Your task to perform on an android device: Go to Wikipedia Image 0: 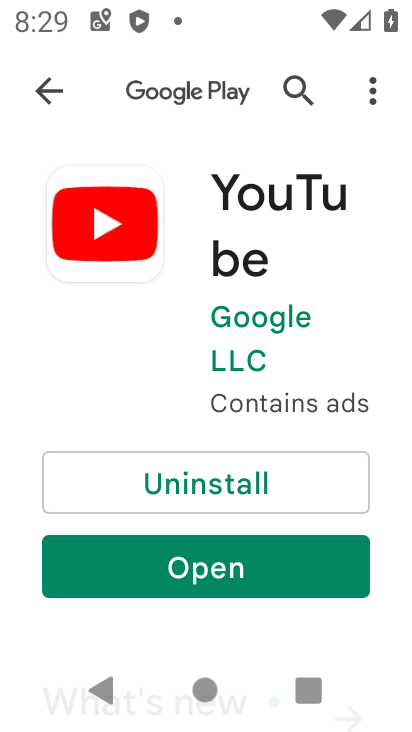
Step 0: press home button
Your task to perform on an android device: Go to Wikipedia Image 1: 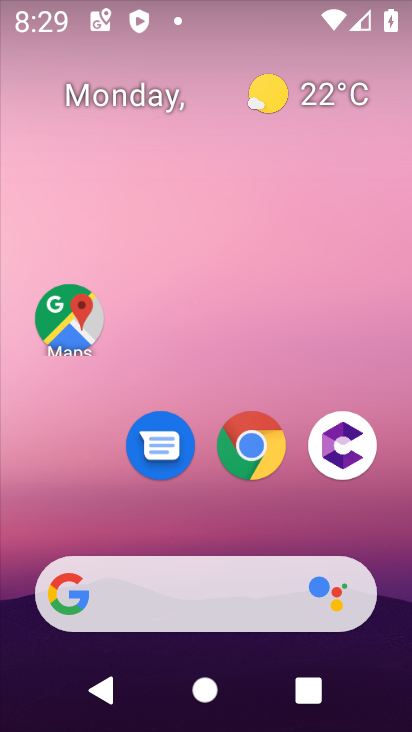
Step 1: click (158, 598)
Your task to perform on an android device: Go to Wikipedia Image 2: 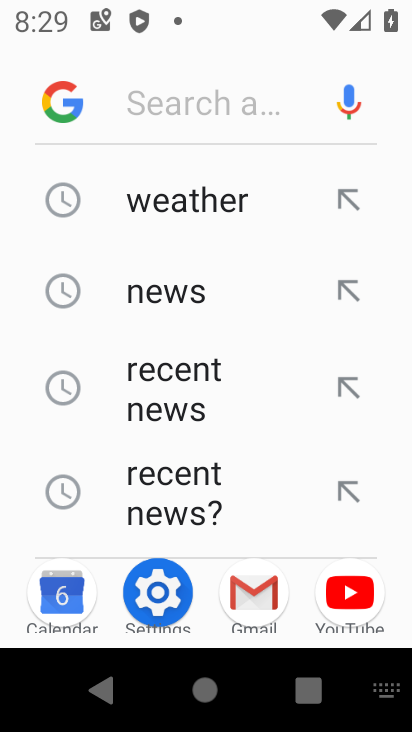
Step 2: click (190, 98)
Your task to perform on an android device: Go to Wikipedia Image 3: 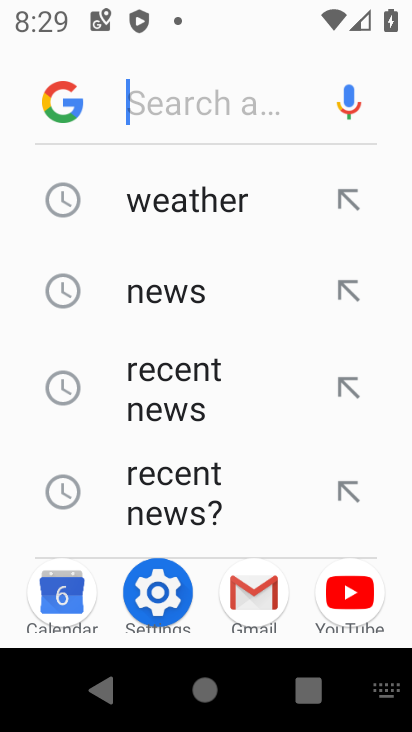
Step 3: type " Wikipedia"
Your task to perform on an android device: Go to Wikipedia Image 4: 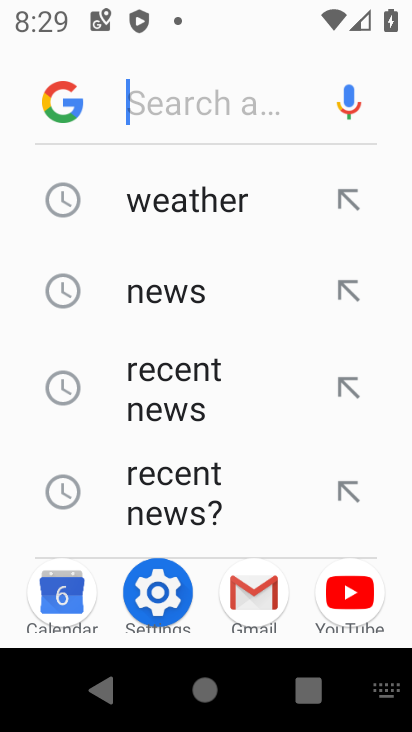
Step 4: click (222, 111)
Your task to perform on an android device: Go to Wikipedia Image 5: 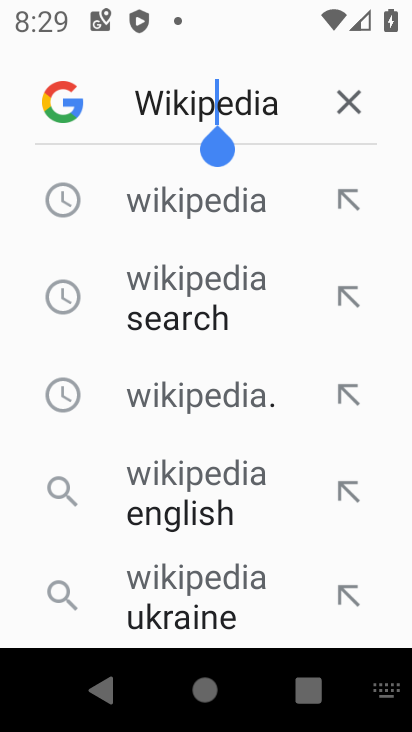
Step 5: click (175, 204)
Your task to perform on an android device: Go to Wikipedia Image 6: 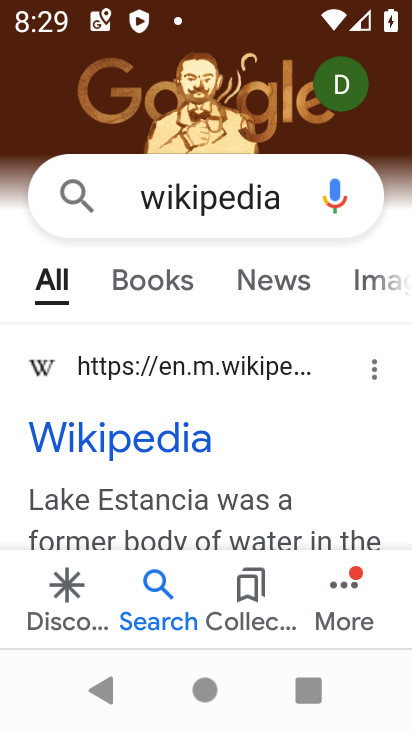
Step 6: click (88, 441)
Your task to perform on an android device: Go to Wikipedia Image 7: 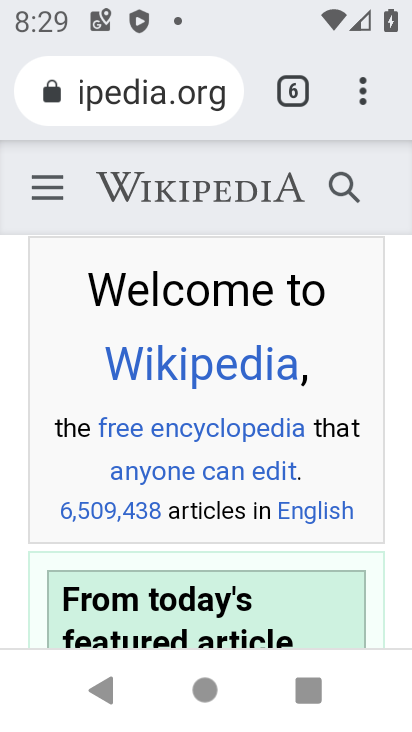
Step 7: drag from (391, 608) to (346, 310)
Your task to perform on an android device: Go to Wikipedia Image 8: 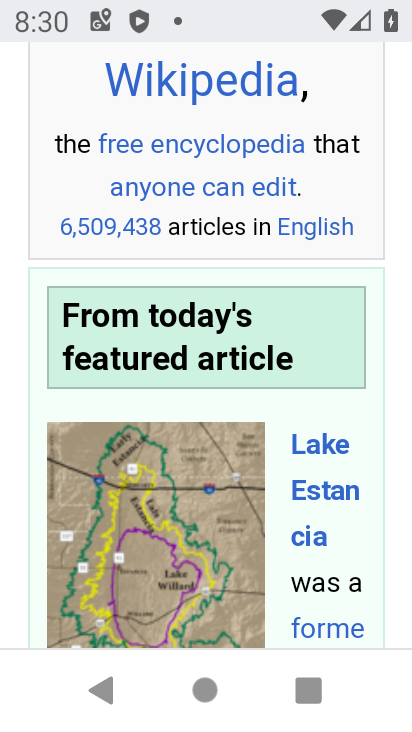
Step 8: press home button
Your task to perform on an android device: Go to Wikipedia Image 9: 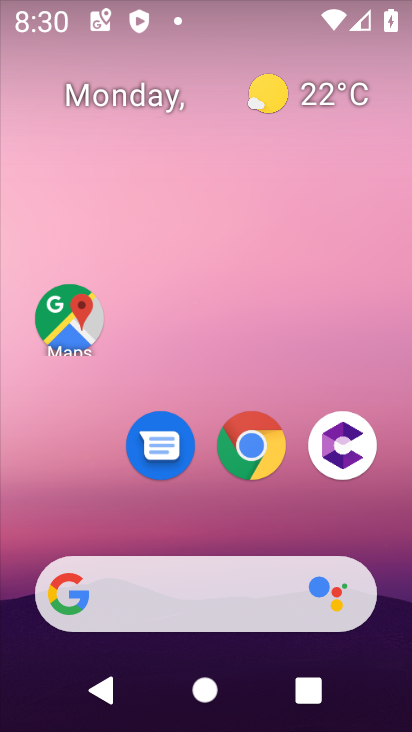
Step 9: click (167, 585)
Your task to perform on an android device: Go to Wikipedia Image 10: 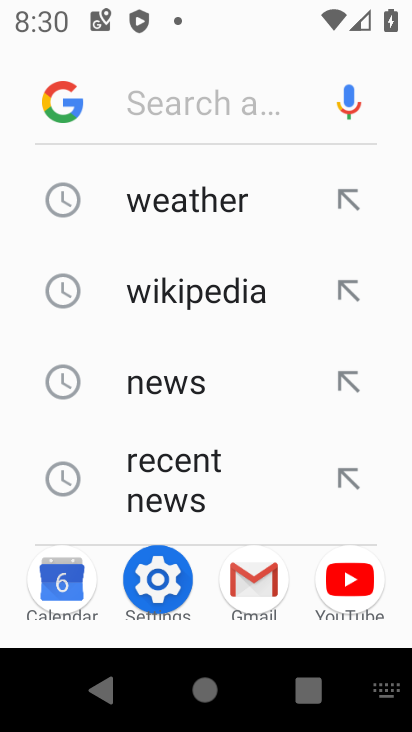
Step 10: click (188, 296)
Your task to perform on an android device: Go to Wikipedia Image 11: 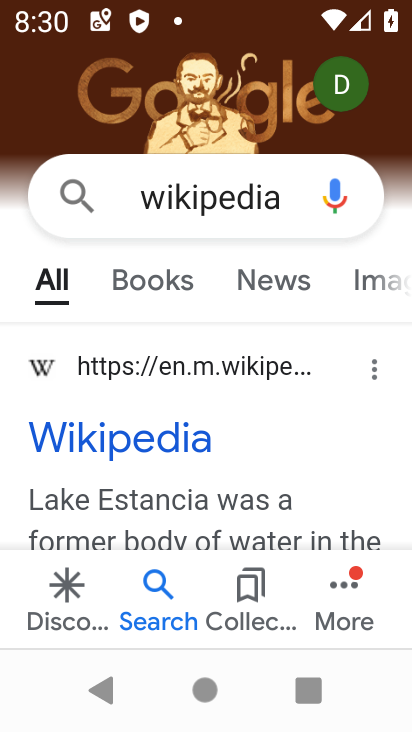
Step 11: click (108, 434)
Your task to perform on an android device: Go to Wikipedia Image 12: 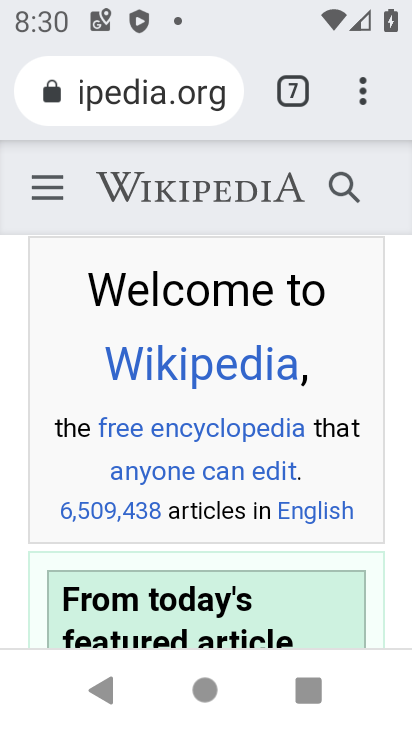
Step 12: task complete